Your task to perform on an android device: toggle notification dots Image 0: 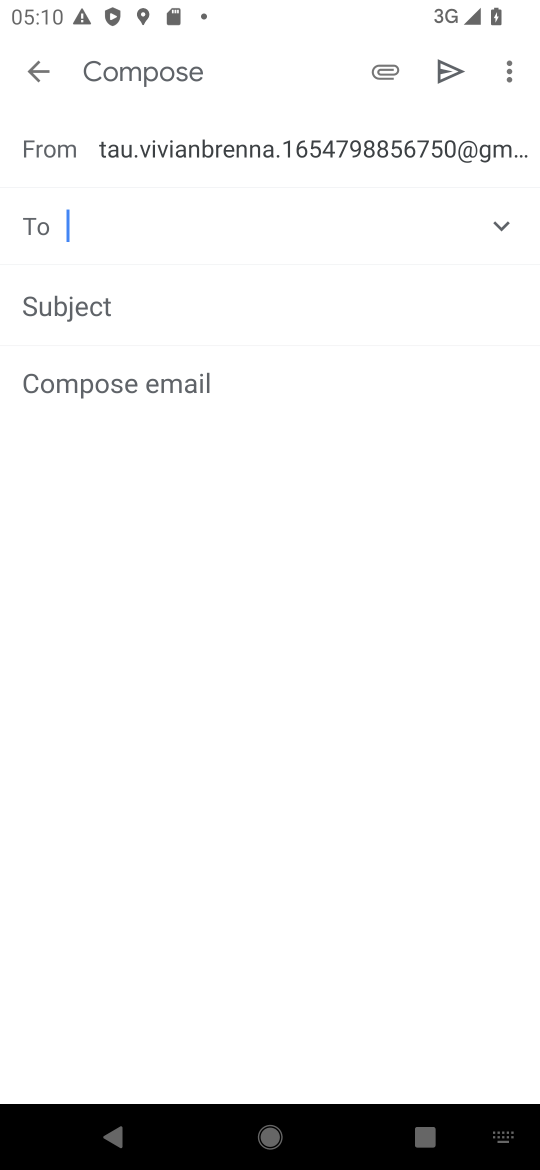
Step 0: press home button
Your task to perform on an android device: toggle notification dots Image 1: 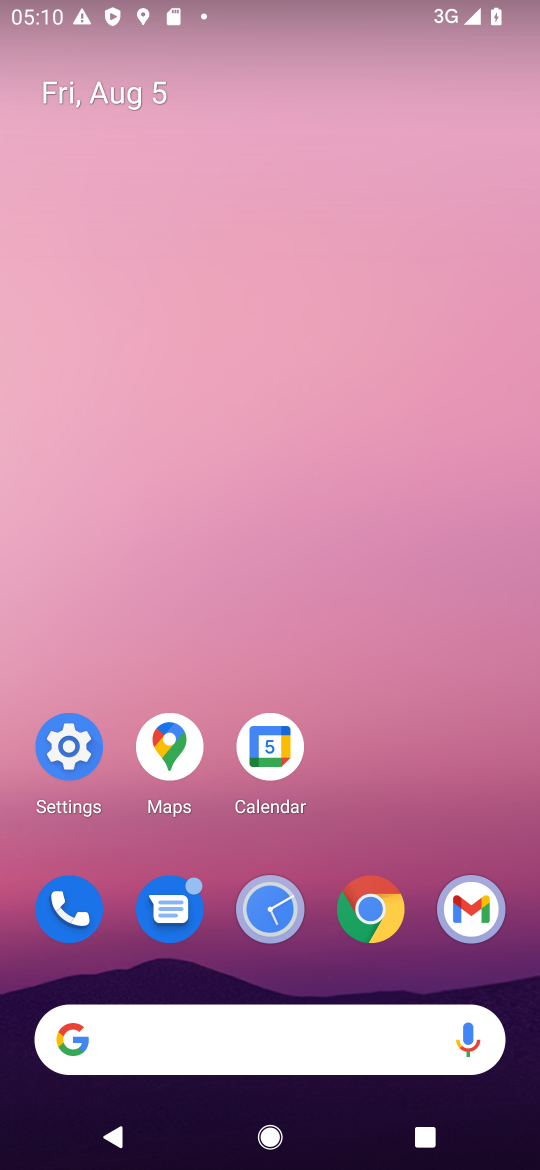
Step 1: click (72, 742)
Your task to perform on an android device: toggle notification dots Image 2: 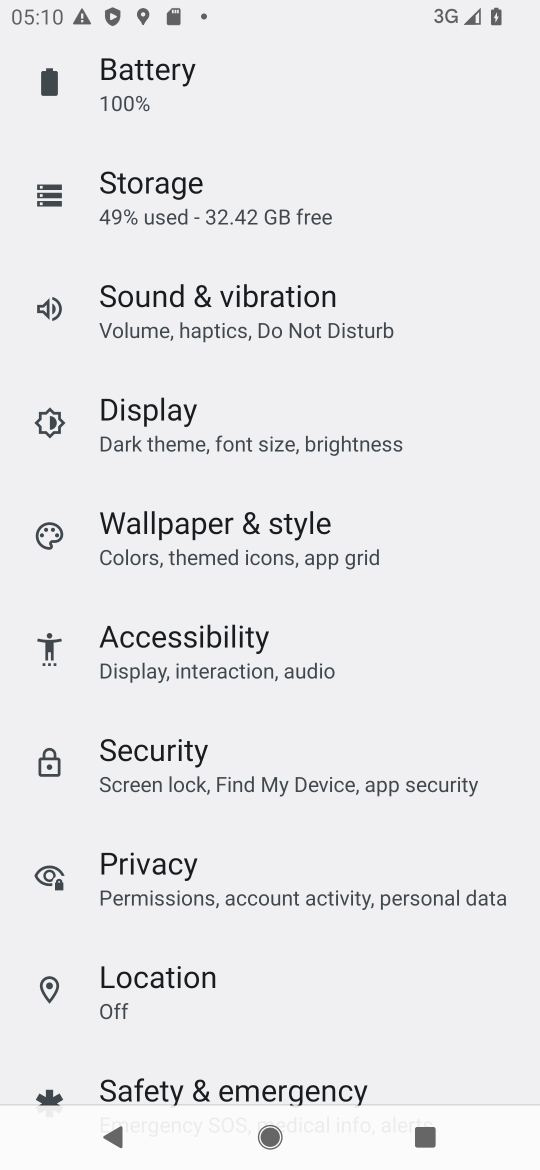
Step 2: drag from (299, 250) to (159, 1046)
Your task to perform on an android device: toggle notification dots Image 3: 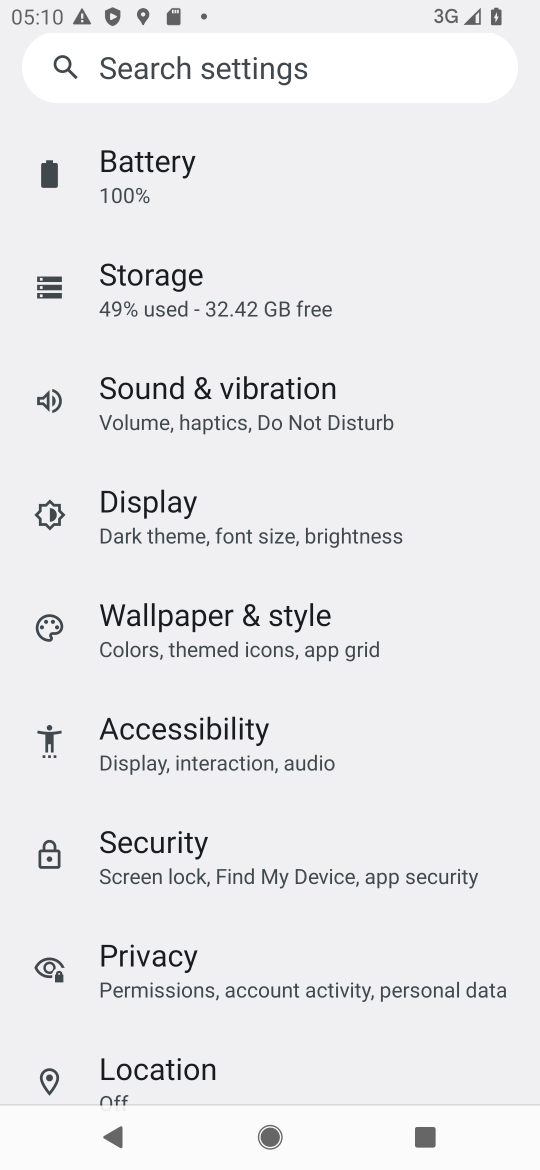
Step 3: drag from (294, 238) to (261, 745)
Your task to perform on an android device: toggle notification dots Image 4: 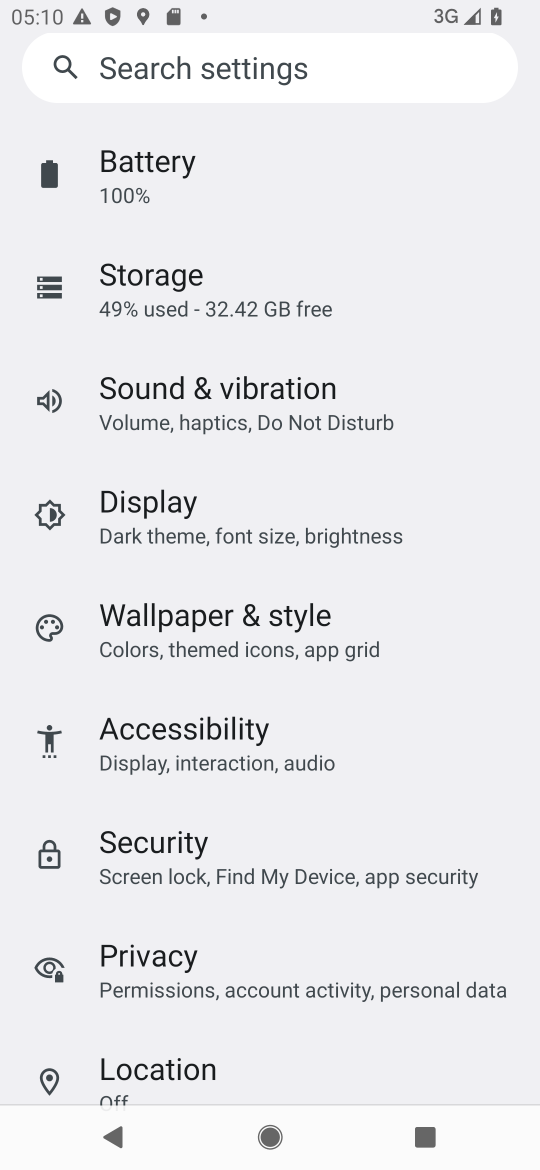
Step 4: drag from (289, 246) to (329, 684)
Your task to perform on an android device: toggle notification dots Image 5: 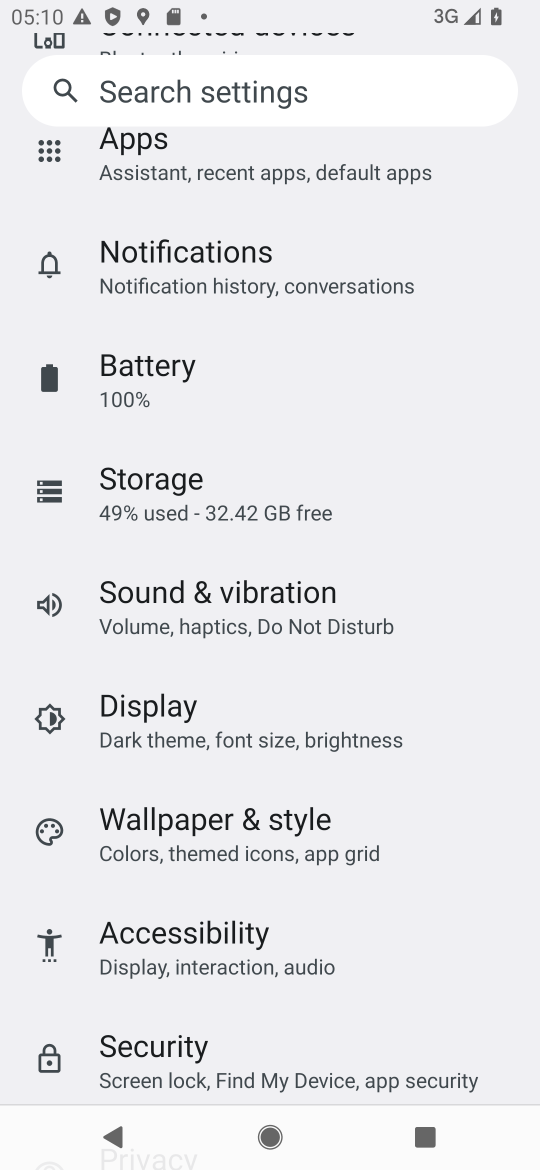
Step 5: click (199, 253)
Your task to perform on an android device: toggle notification dots Image 6: 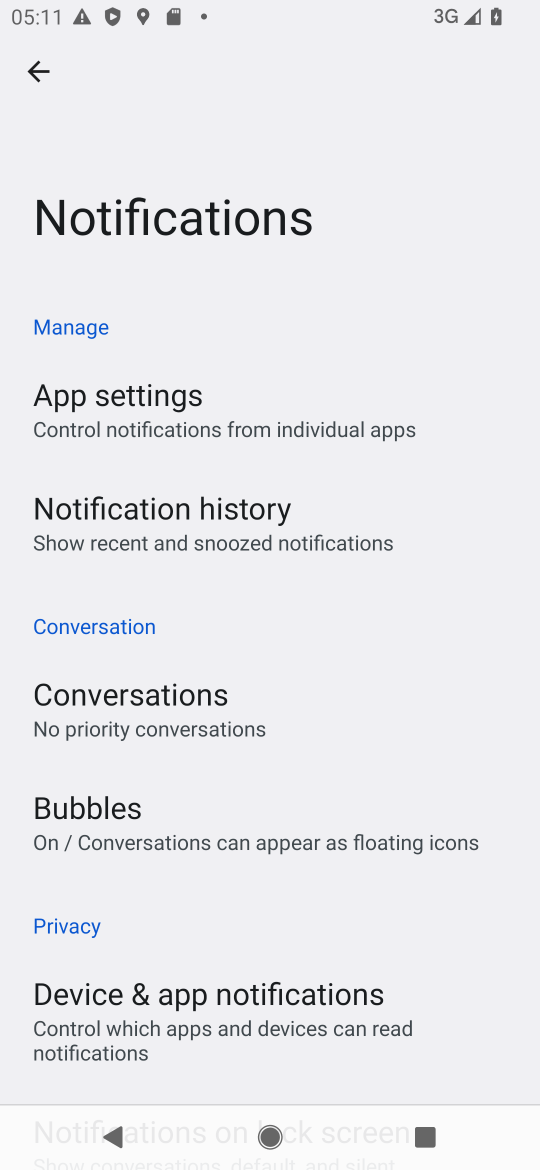
Step 6: drag from (246, 918) to (233, 367)
Your task to perform on an android device: toggle notification dots Image 7: 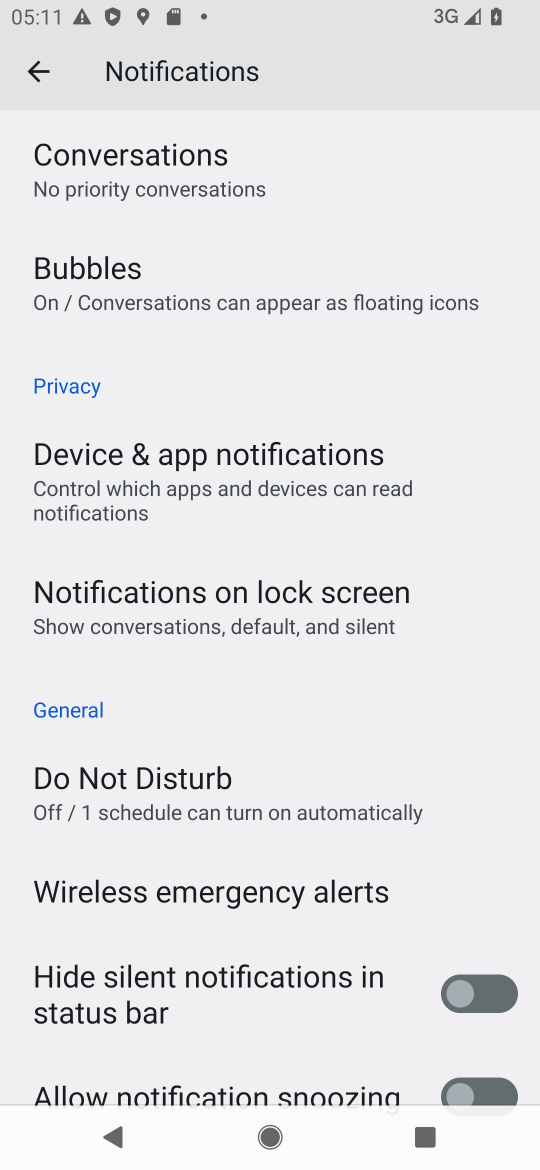
Step 7: drag from (280, 1049) to (268, 578)
Your task to perform on an android device: toggle notification dots Image 8: 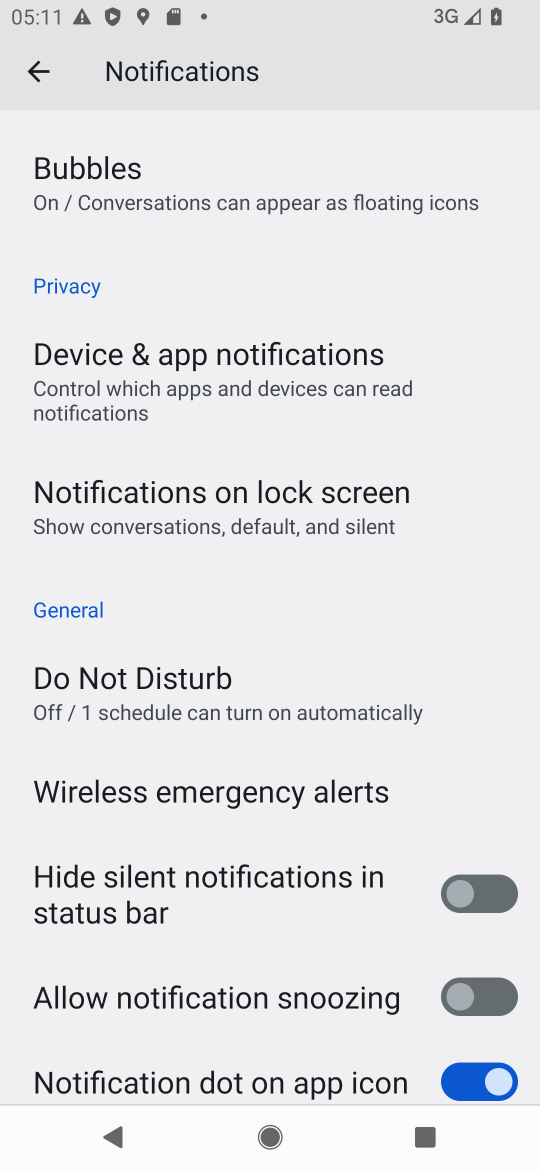
Step 8: click (496, 1084)
Your task to perform on an android device: toggle notification dots Image 9: 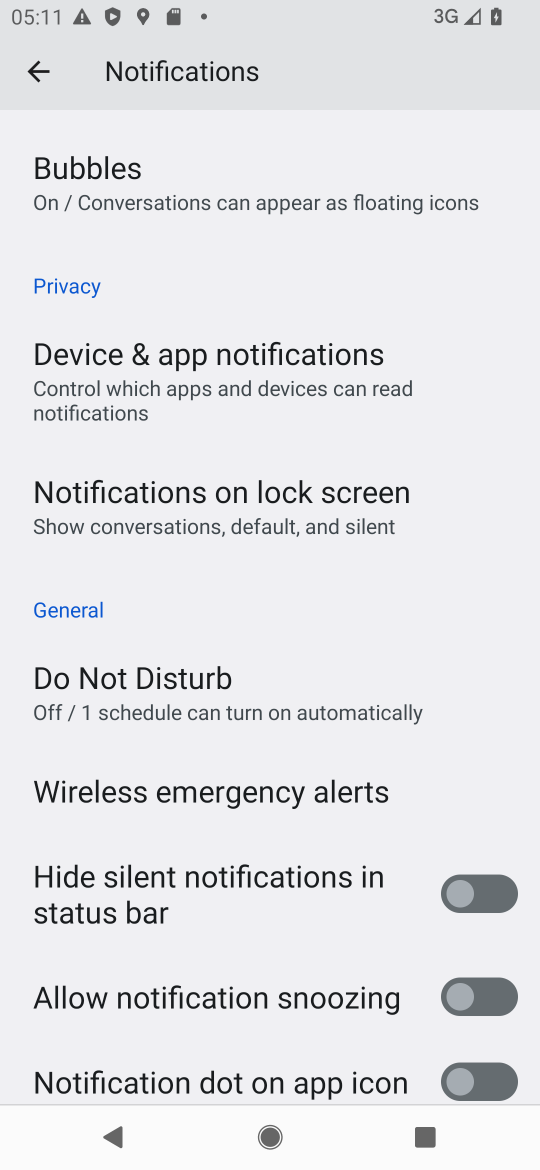
Step 9: task complete